Your task to perform on an android device: change the clock style Image 0: 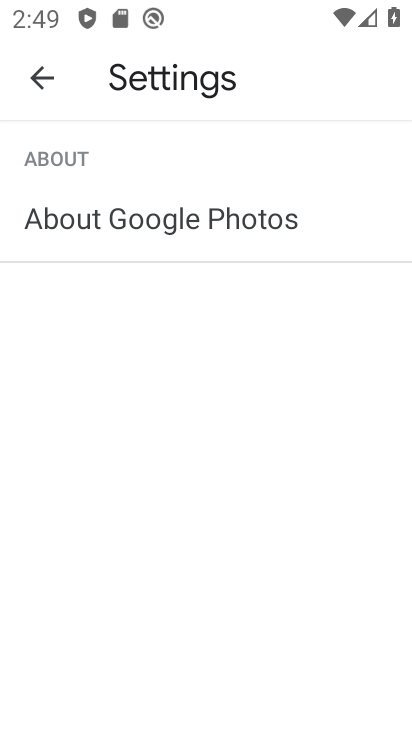
Step 0: press back button
Your task to perform on an android device: change the clock style Image 1: 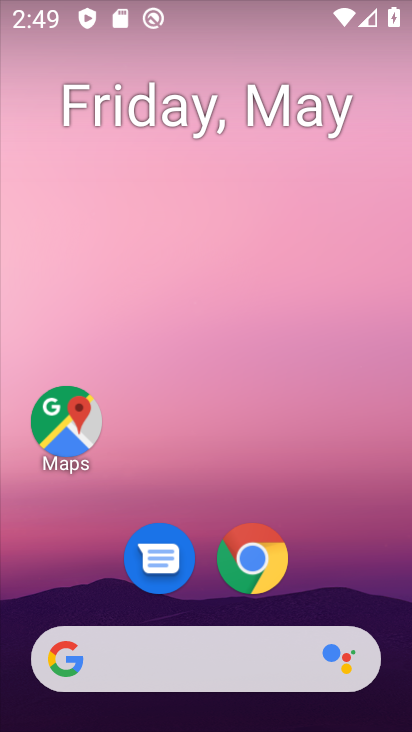
Step 1: drag from (90, 631) to (244, 174)
Your task to perform on an android device: change the clock style Image 2: 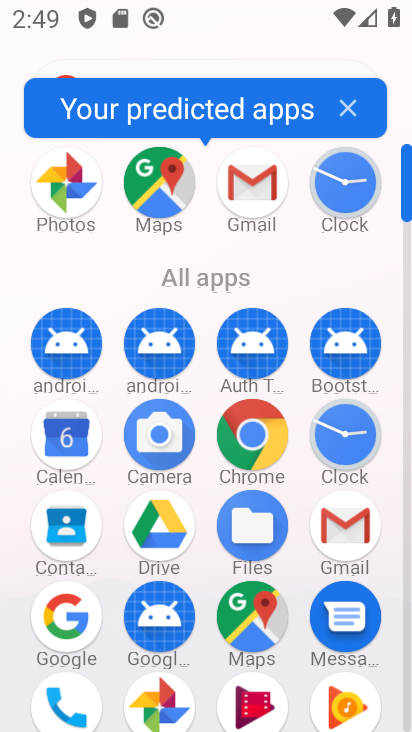
Step 2: click (349, 447)
Your task to perform on an android device: change the clock style Image 3: 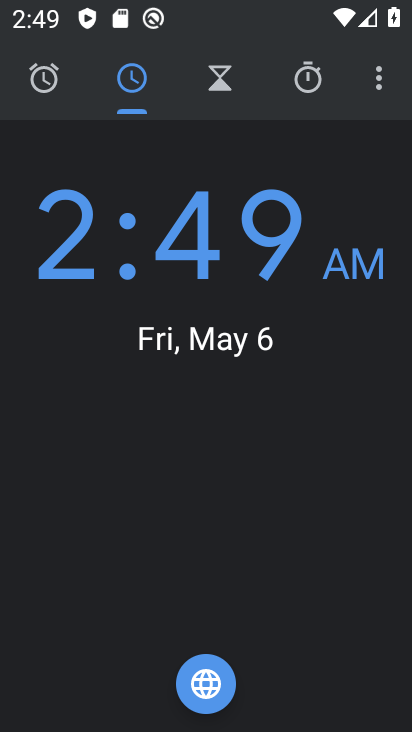
Step 3: click (383, 78)
Your task to perform on an android device: change the clock style Image 4: 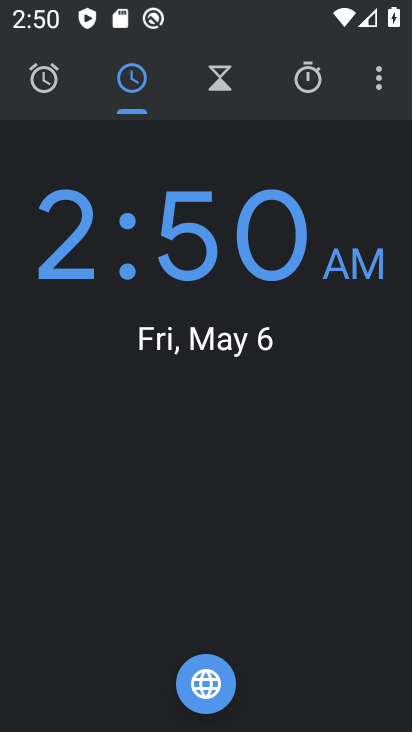
Step 4: click (379, 83)
Your task to perform on an android device: change the clock style Image 5: 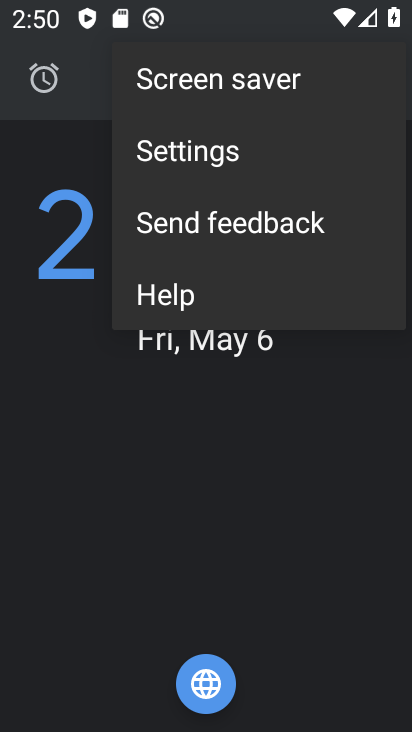
Step 5: click (282, 147)
Your task to perform on an android device: change the clock style Image 6: 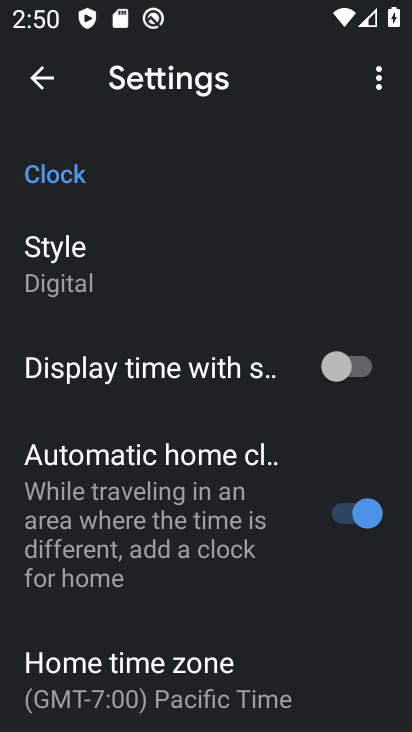
Step 6: click (169, 273)
Your task to perform on an android device: change the clock style Image 7: 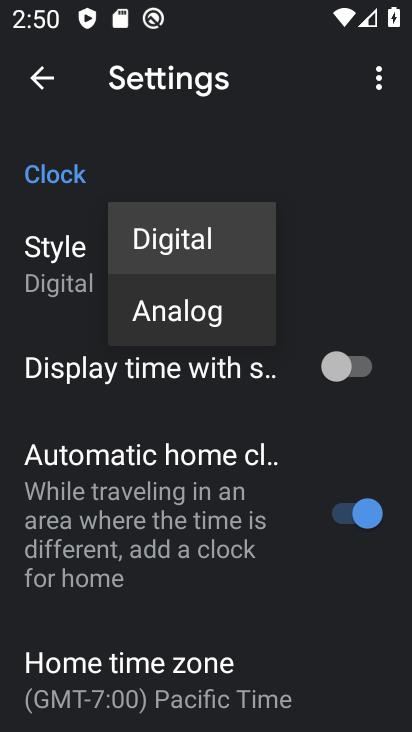
Step 7: click (197, 329)
Your task to perform on an android device: change the clock style Image 8: 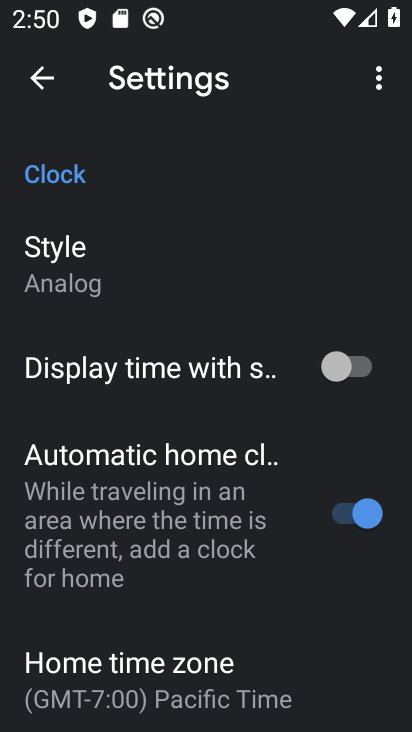
Step 8: task complete